Your task to perform on an android device: Open Youtube and go to the subscriptions tab Image 0: 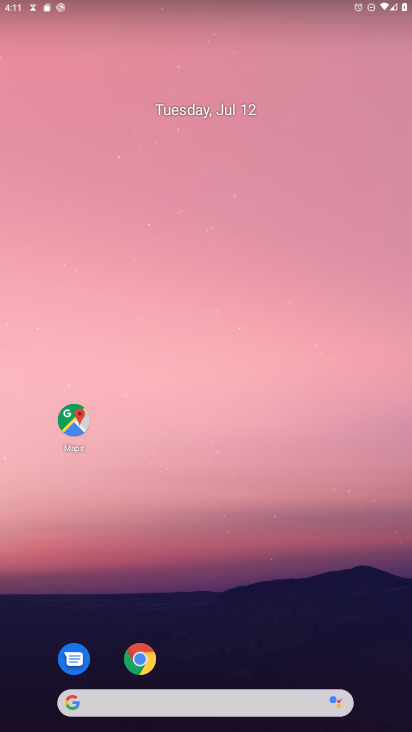
Step 0: click (206, 67)
Your task to perform on an android device: Open Youtube and go to the subscriptions tab Image 1: 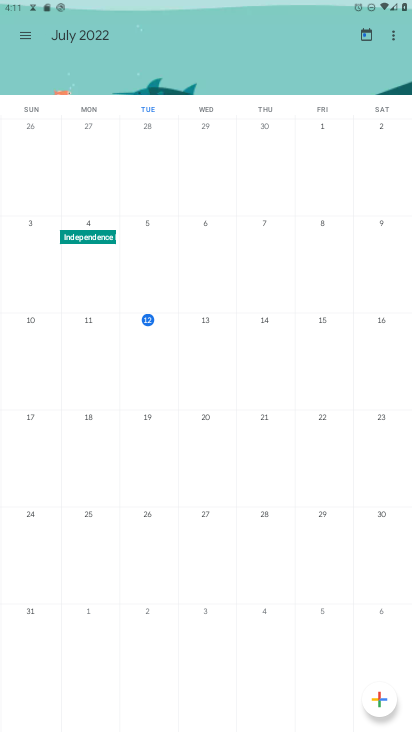
Step 1: press home button
Your task to perform on an android device: Open Youtube and go to the subscriptions tab Image 2: 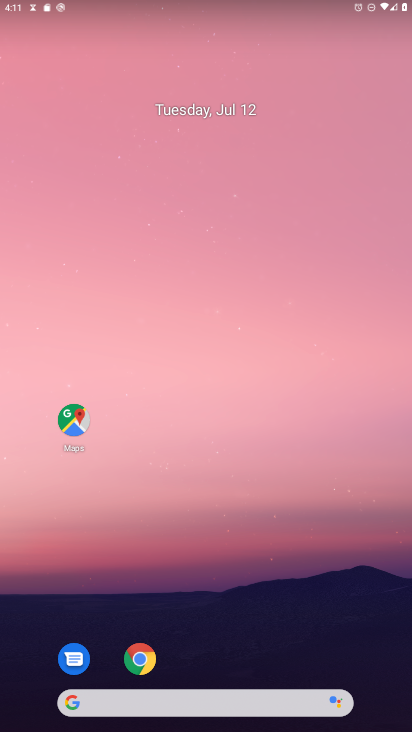
Step 2: click (181, 661)
Your task to perform on an android device: Open Youtube and go to the subscriptions tab Image 3: 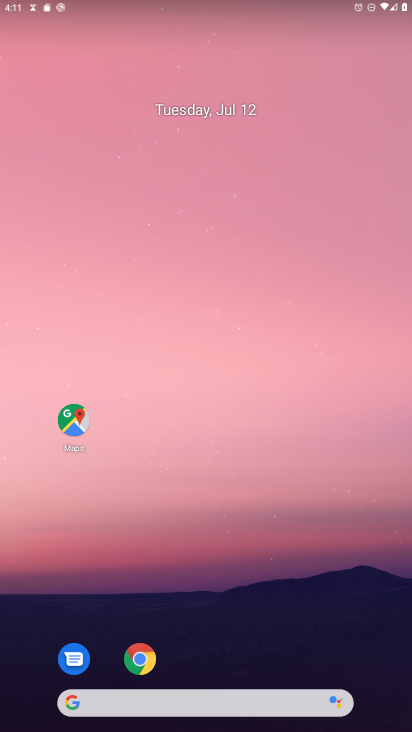
Step 3: drag from (205, 304) to (206, 9)
Your task to perform on an android device: Open Youtube and go to the subscriptions tab Image 4: 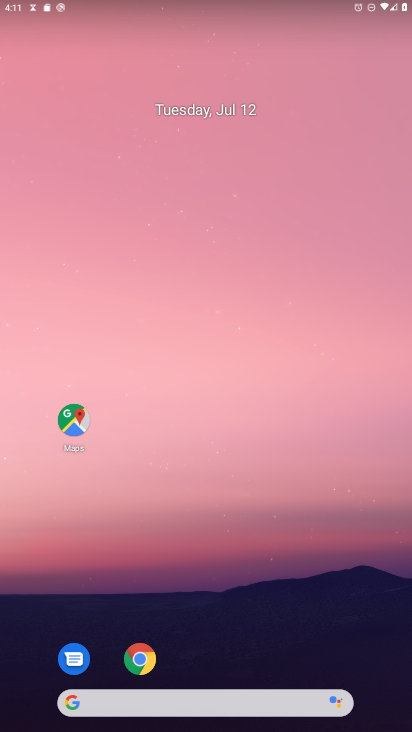
Step 4: drag from (201, 599) to (226, 40)
Your task to perform on an android device: Open Youtube and go to the subscriptions tab Image 5: 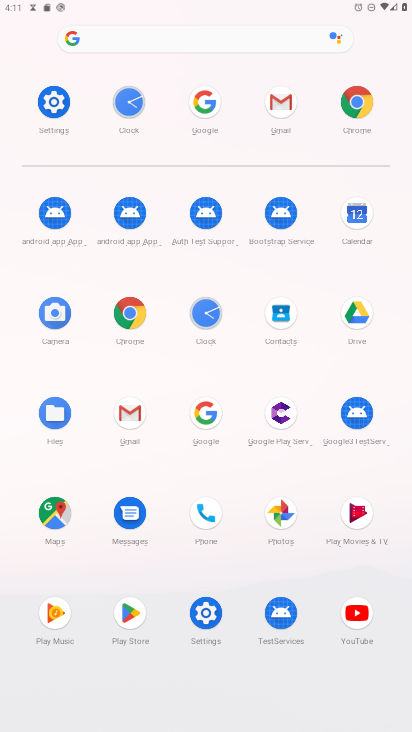
Step 5: click (350, 610)
Your task to perform on an android device: Open Youtube and go to the subscriptions tab Image 6: 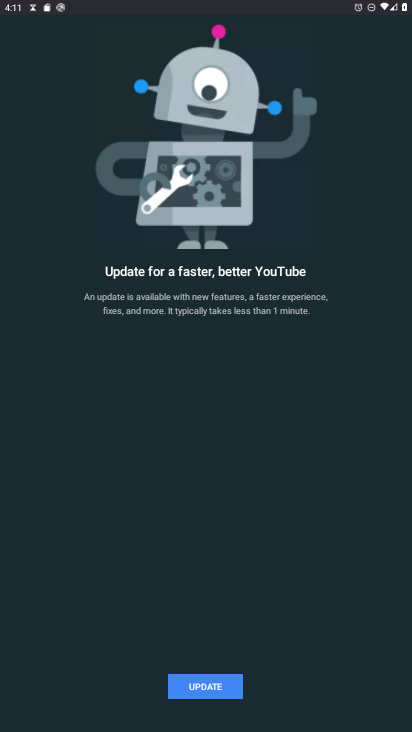
Step 6: click (215, 680)
Your task to perform on an android device: Open Youtube and go to the subscriptions tab Image 7: 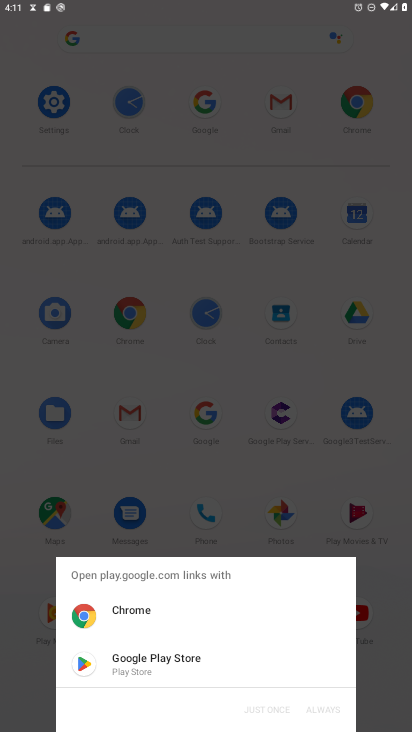
Step 7: click (194, 656)
Your task to perform on an android device: Open Youtube and go to the subscriptions tab Image 8: 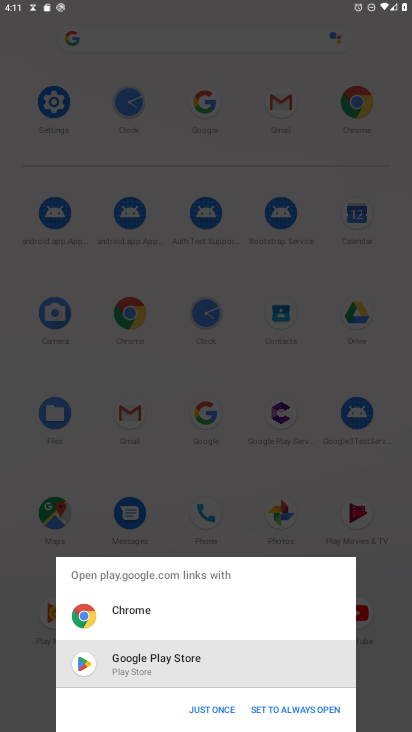
Step 8: click (277, 715)
Your task to perform on an android device: Open Youtube and go to the subscriptions tab Image 9: 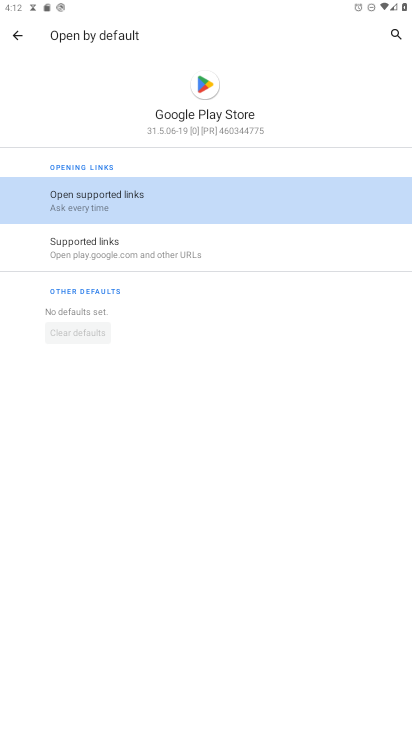
Step 9: click (113, 201)
Your task to perform on an android device: Open Youtube and go to the subscriptions tab Image 10: 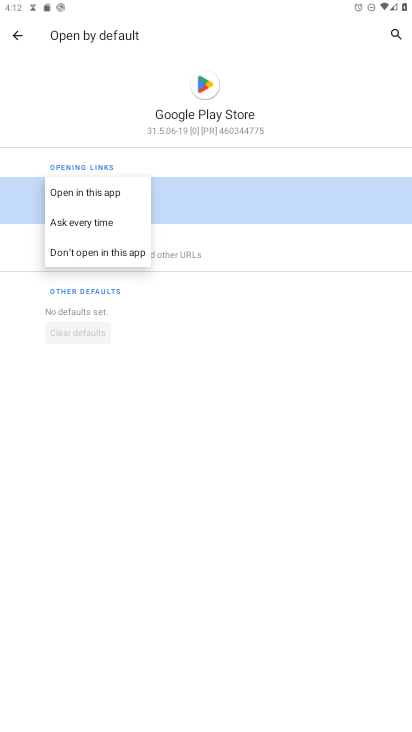
Step 10: click (99, 186)
Your task to perform on an android device: Open Youtube and go to the subscriptions tab Image 11: 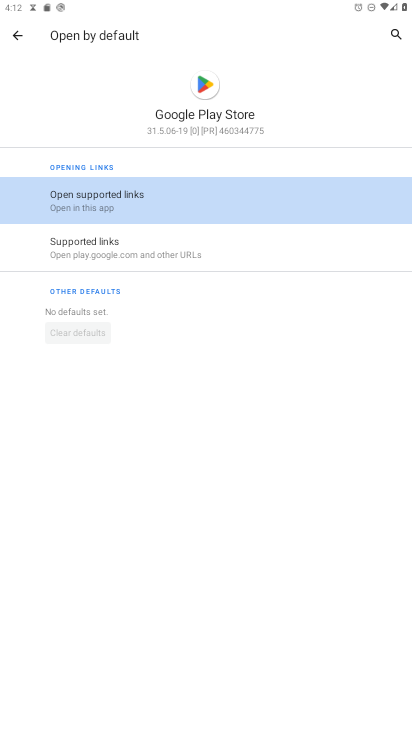
Step 11: click (15, 27)
Your task to perform on an android device: Open Youtube and go to the subscriptions tab Image 12: 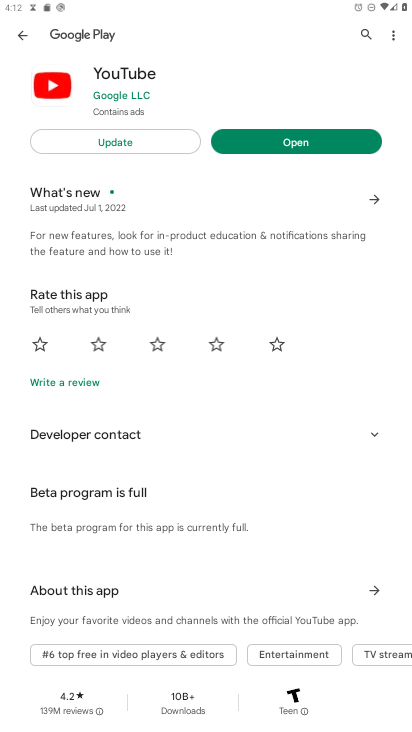
Step 12: click (126, 146)
Your task to perform on an android device: Open Youtube and go to the subscriptions tab Image 13: 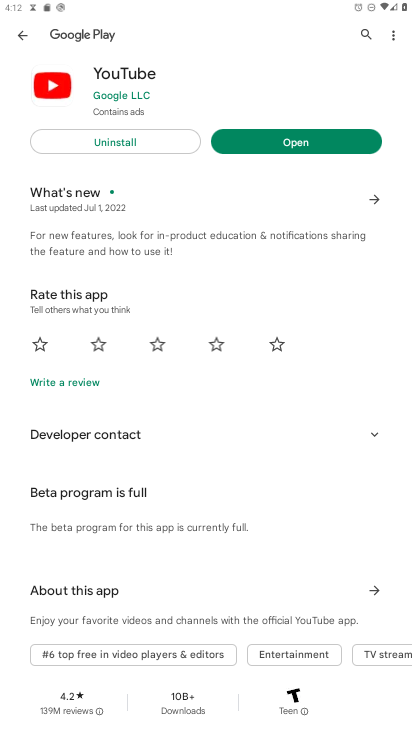
Step 13: click (289, 142)
Your task to perform on an android device: Open Youtube and go to the subscriptions tab Image 14: 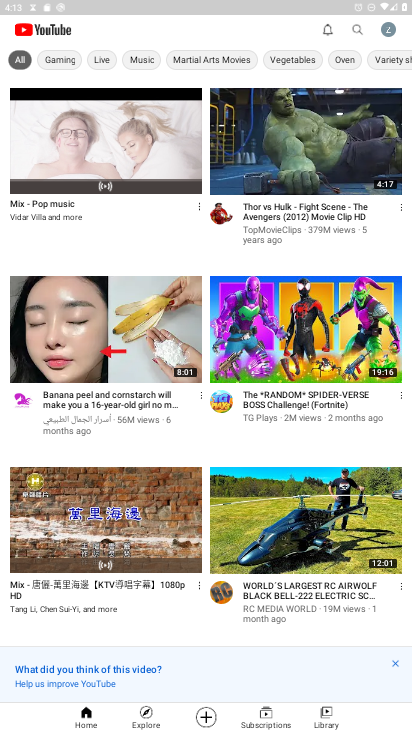
Step 14: click (274, 718)
Your task to perform on an android device: Open Youtube and go to the subscriptions tab Image 15: 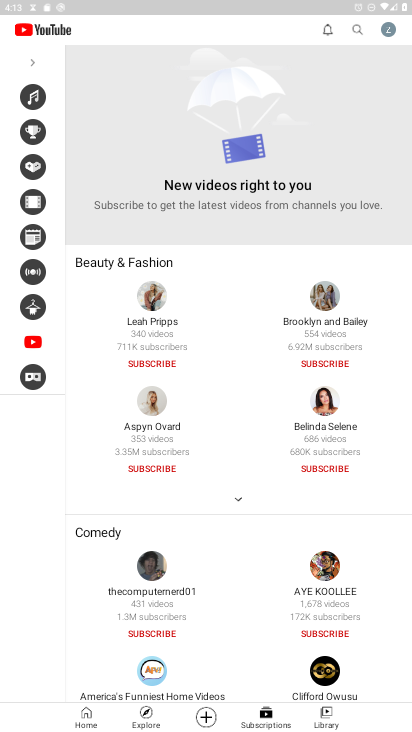
Step 15: task complete